Your task to perform on an android device: set the stopwatch Image 0: 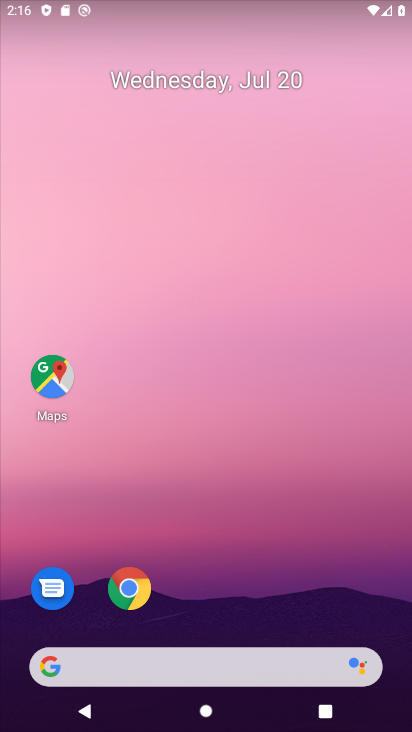
Step 0: drag from (177, 602) to (315, 11)
Your task to perform on an android device: set the stopwatch Image 1: 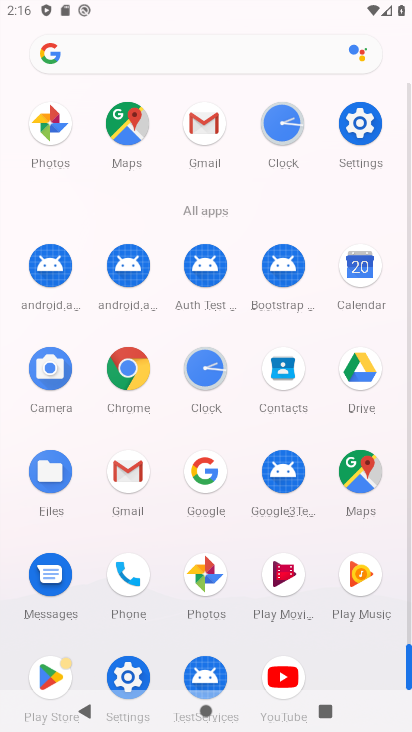
Step 1: click (201, 369)
Your task to perform on an android device: set the stopwatch Image 2: 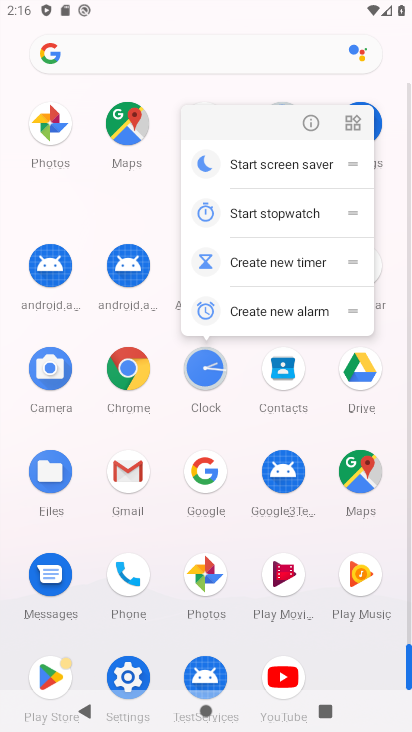
Step 2: click (306, 122)
Your task to perform on an android device: set the stopwatch Image 3: 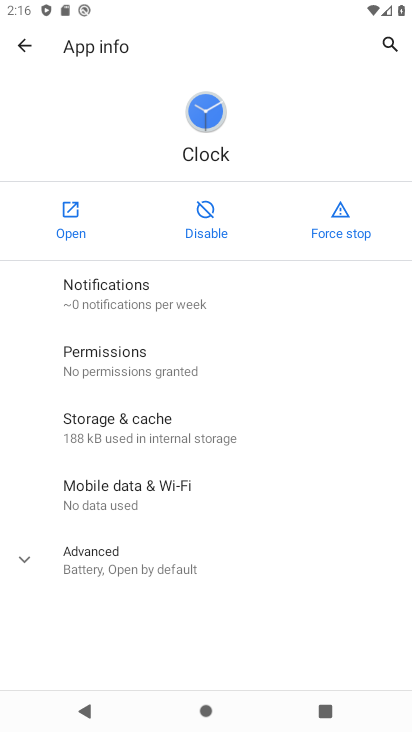
Step 3: click (66, 222)
Your task to perform on an android device: set the stopwatch Image 4: 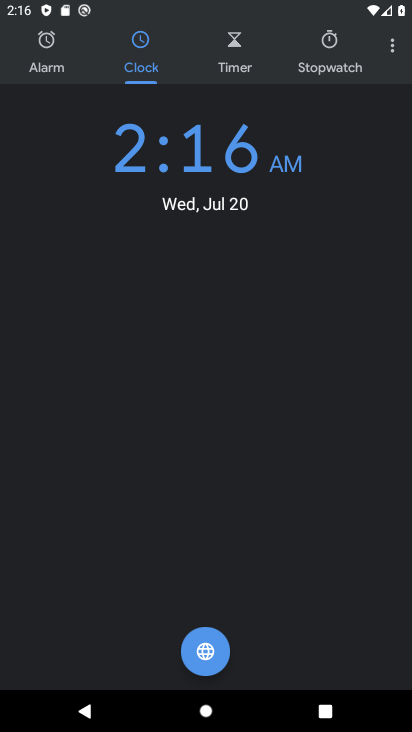
Step 4: click (316, 22)
Your task to perform on an android device: set the stopwatch Image 5: 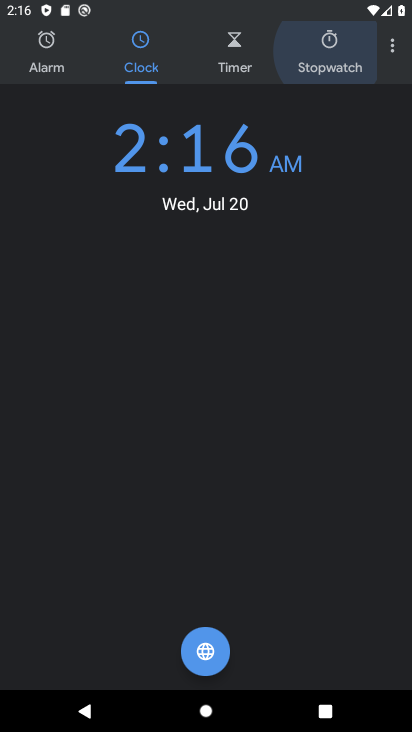
Step 5: click (317, 32)
Your task to perform on an android device: set the stopwatch Image 6: 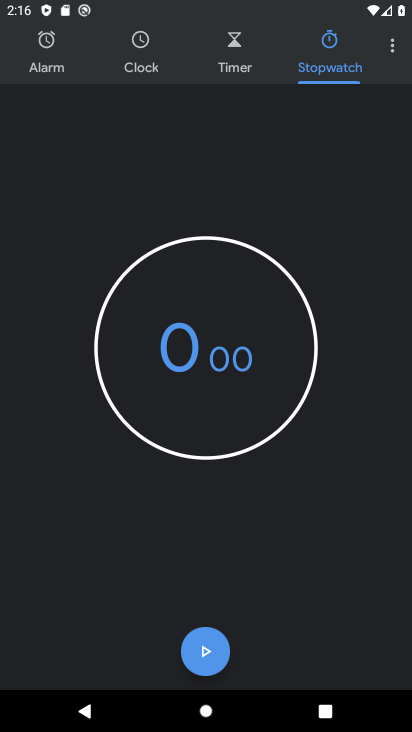
Step 6: click (192, 659)
Your task to perform on an android device: set the stopwatch Image 7: 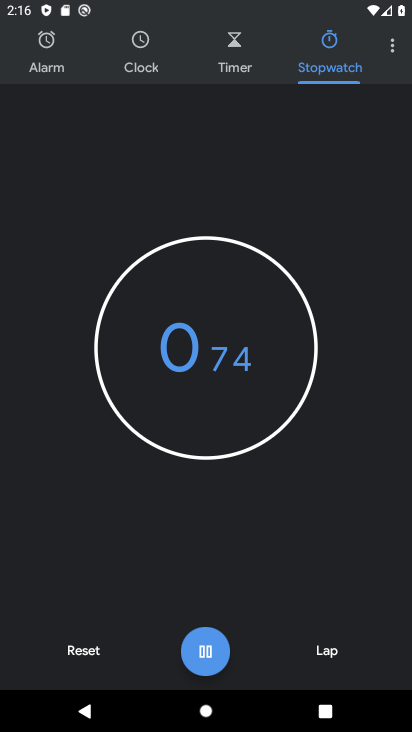
Step 7: task complete